Your task to perform on an android device: toggle sleep mode Image 0: 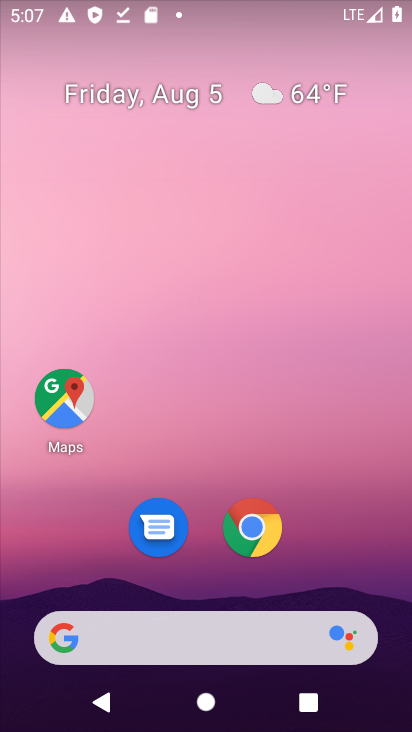
Step 0: drag from (216, 514) to (299, 7)
Your task to perform on an android device: toggle sleep mode Image 1: 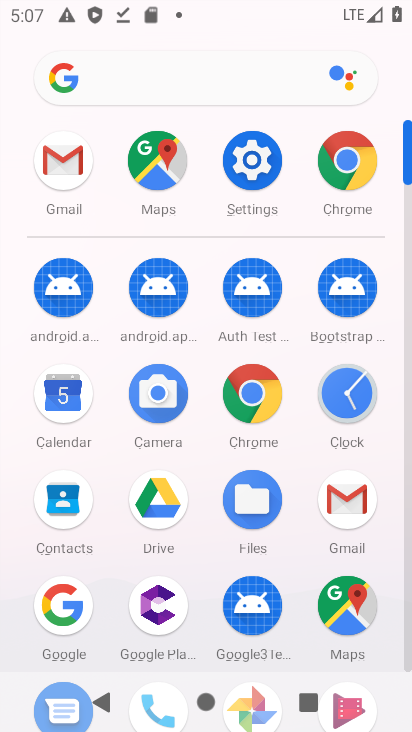
Step 1: click (261, 174)
Your task to perform on an android device: toggle sleep mode Image 2: 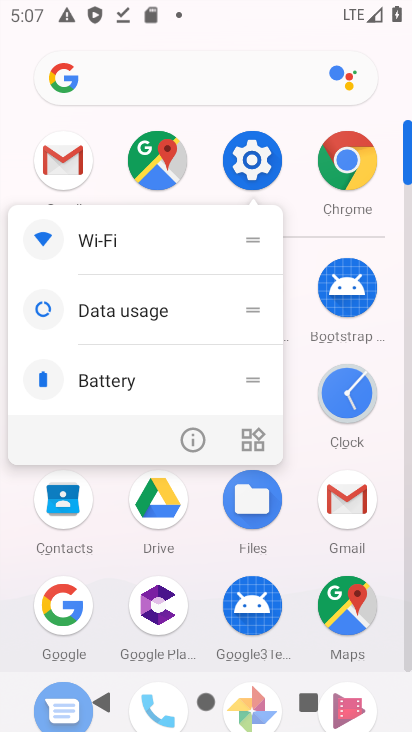
Step 2: click (160, 446)
Your task to perform on an android device: toggle sleep mode Image 3: 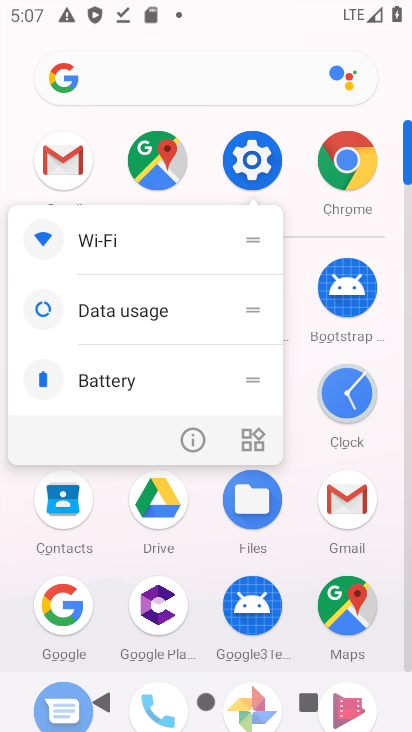
Step 3: click (162, 444)
Your task to perform on an android device: toggle sleep mode Image 4: 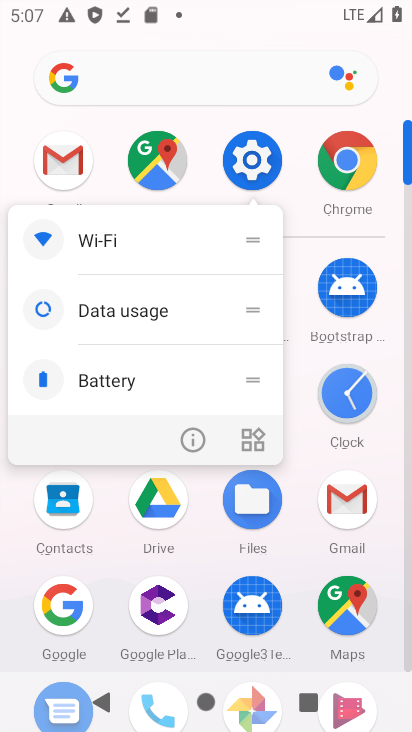
Step 4: click (194, 440)
Your task to perform on an android device: toggle sleep mode Image 5: 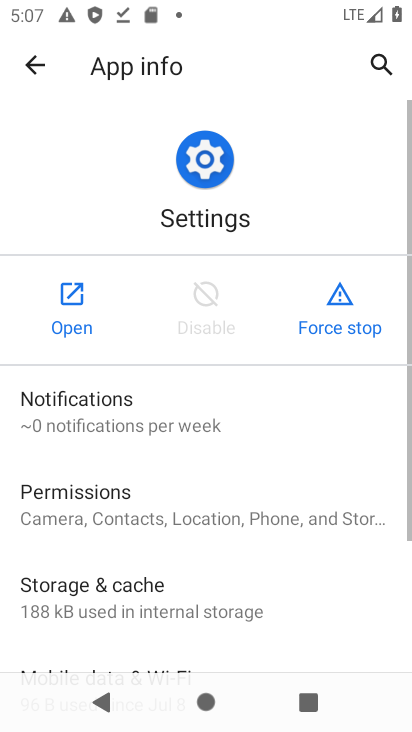
Step 5: click (74, 298)
Your task to perform on an android device: toggle sleep mode Image 6: 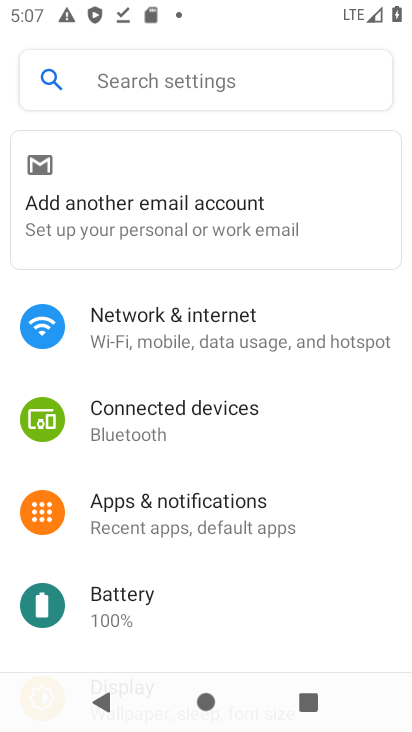
Step 6: drag from (159, 517) to (274, 56)
Your task to perform on an android device: toggle sleep mode Image 7: 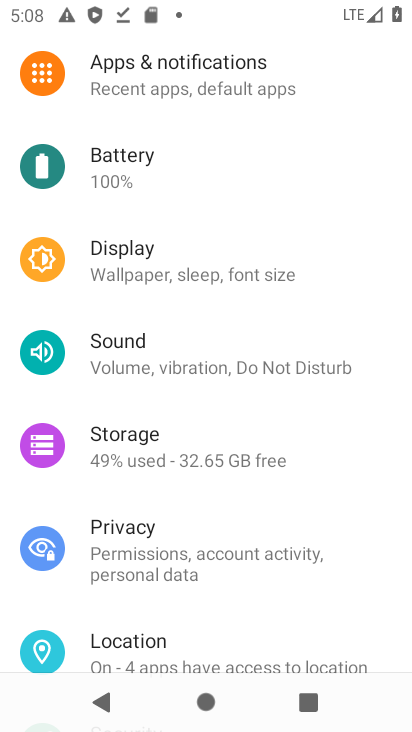
Step 7: click (198, 251)
Your task to perform on an android device: toggle sleep mode Image 8: 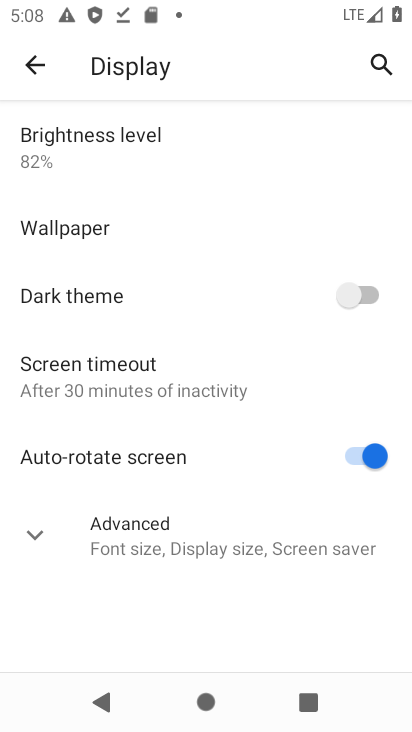
Step 8: click (216, 393)
Your task to perform on an android device: toggle sleep mode Image 9: 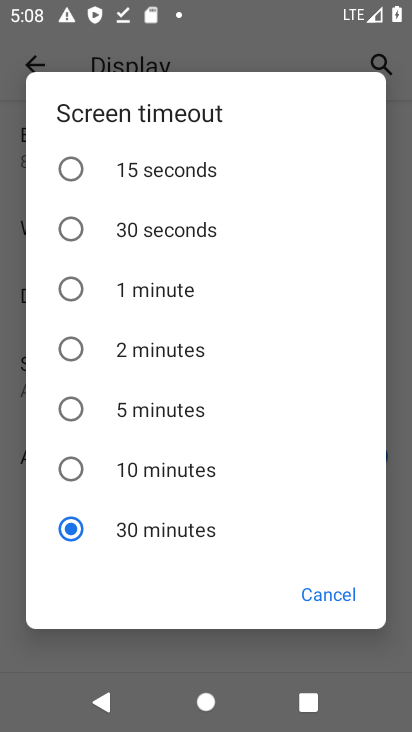
Step 9: task complete